Your task to perform on an android device: check battery use Image 0: 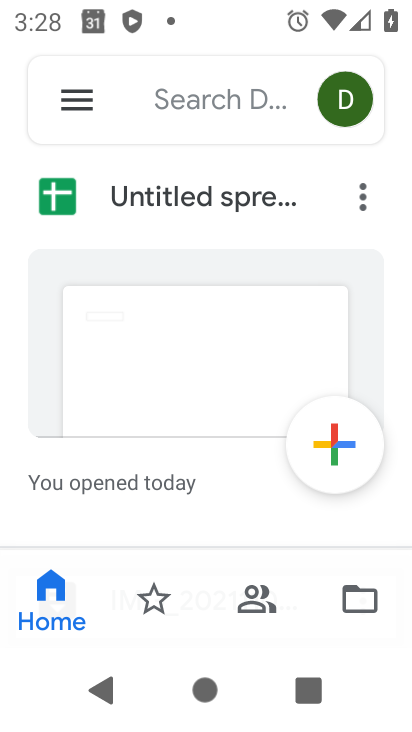
Step 0: press home button
Your task to perform on an android device: check battery use Image 1: 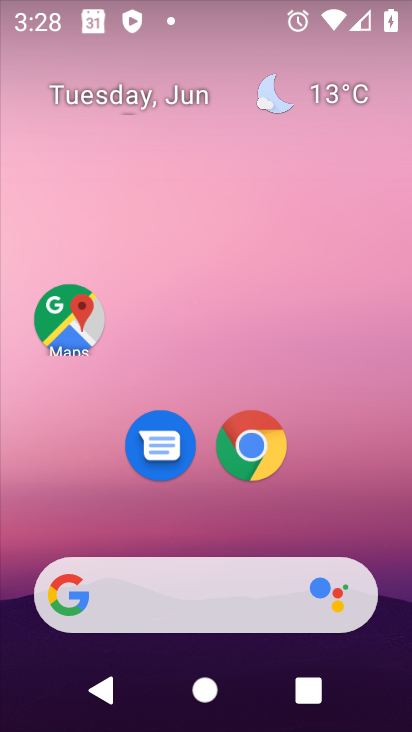
Step 1: drag from (398, 602) to (353, 151)
Your task to perform on an android device: check battery use Image 2: 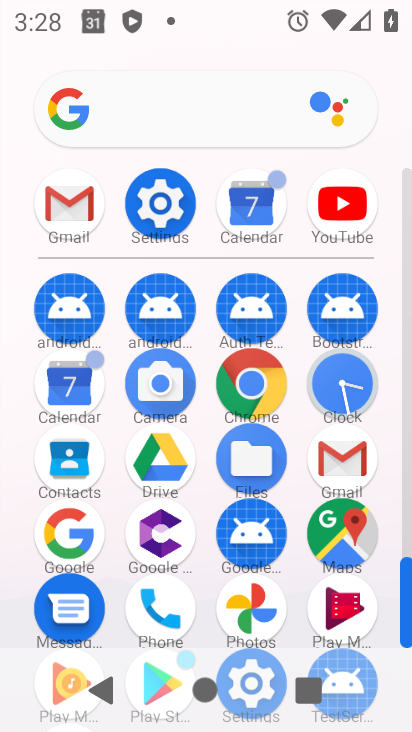
Step 2: drag from (405, 531) to (401, 436)
Your task to perform on an android device: check battery use Image 3: 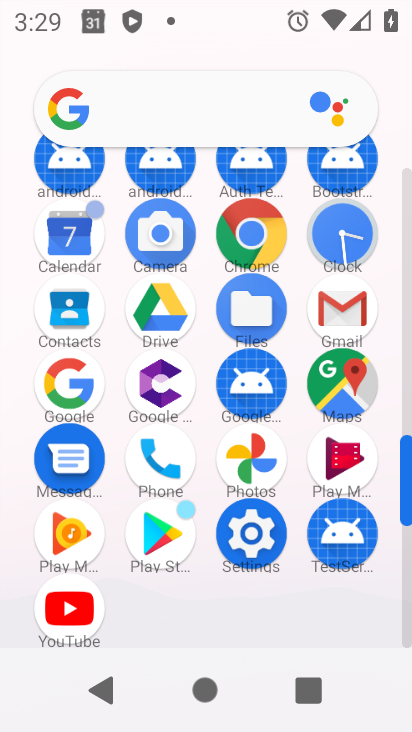
Step 3: click (252, 531)
Your task to perform on an android device: check battery use Image 4: 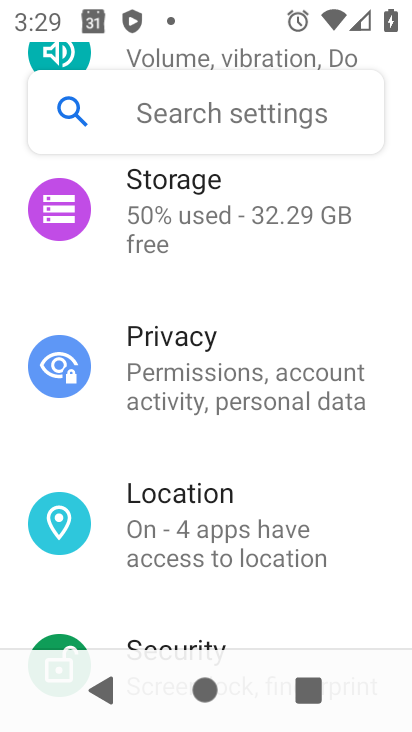
Step 4: drag from (364, 190) to (383, 490)
Your task to perform on an android device: check battery use Image 5: 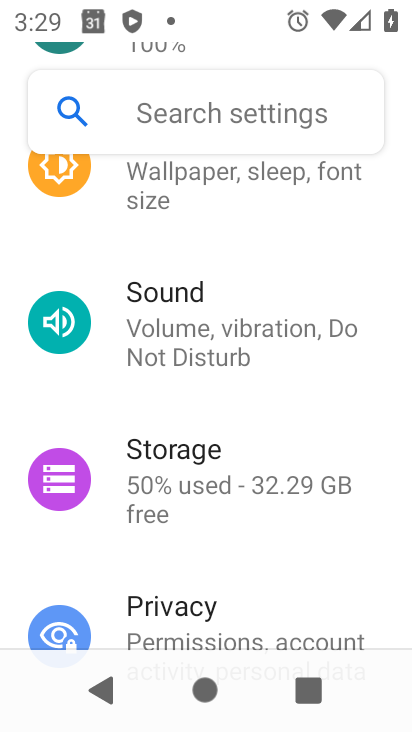
Step 5: drag from (373, 185) to (362, 528)
Your task to perform on an android device: check battery use Image 6: 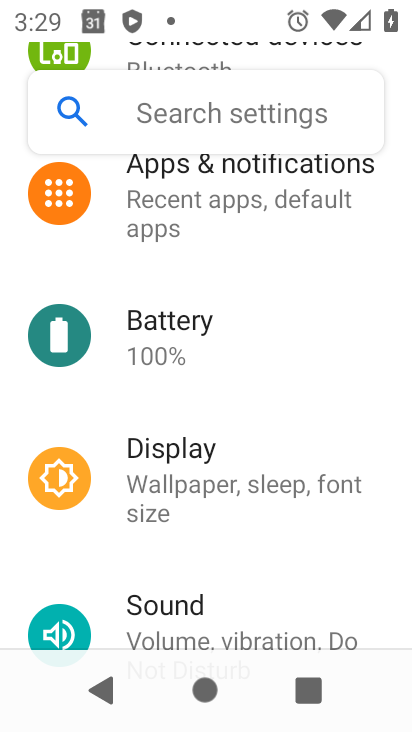
Step 6: click (152, 327)
Your task to perform on an android device: check battery use Image 7: 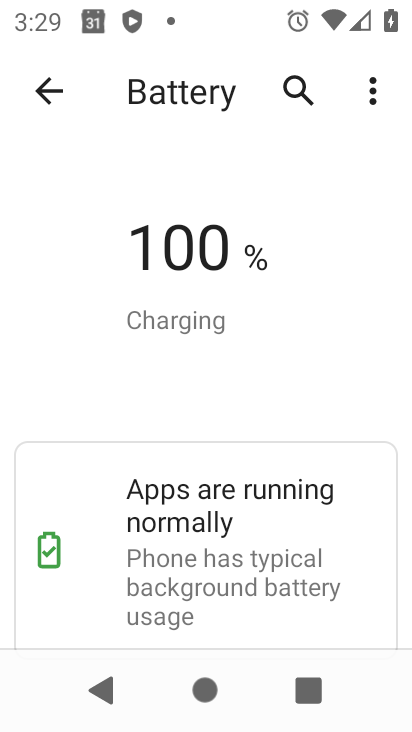
Step 7: drag from (354, 645) to (280, 142)
Your task to perform on an android device: check battery use Image 8: 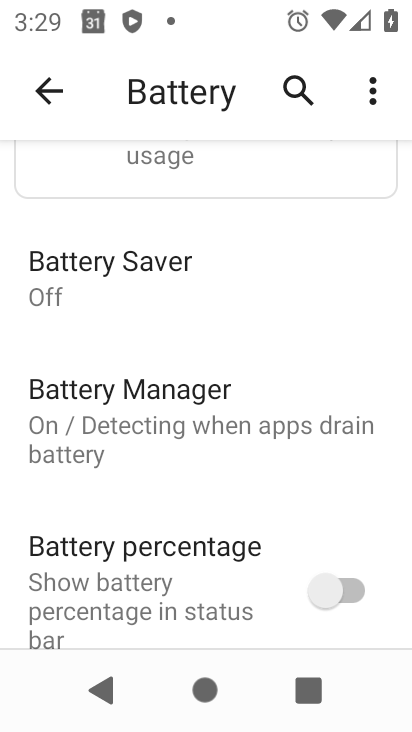
Step 8: drag from (280, 551) to (277, 75)
Your task to perform on an android device: check battery use Image 9: 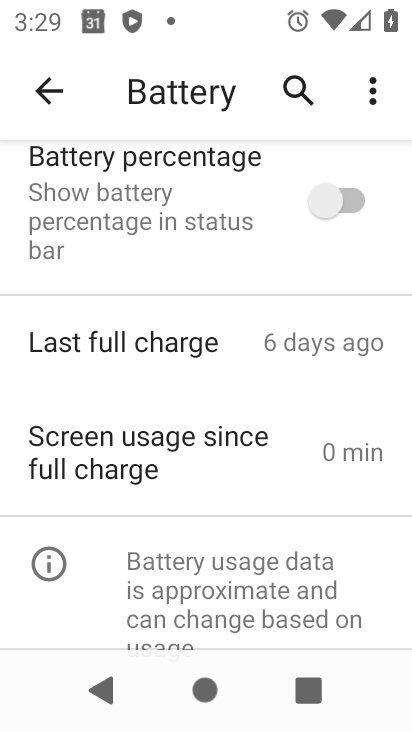
Step 9: click (372, 97)
Your task to perform on an android device: check battery use Image 10: 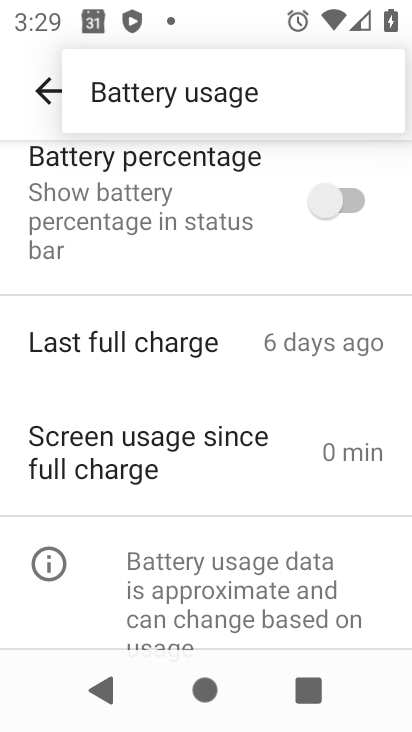
Step 10: click (155, 89)
Your task to perform on an android device: check battery use Image 11: 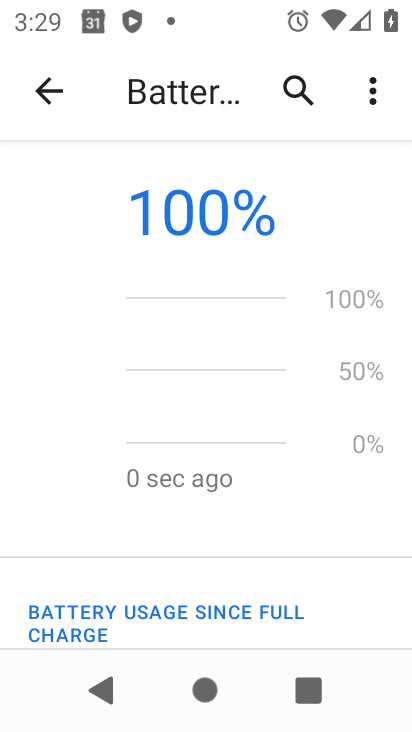
Step 11: task complete